Your task to perform on an android device: refresh tabs in the chrome app Image 0: 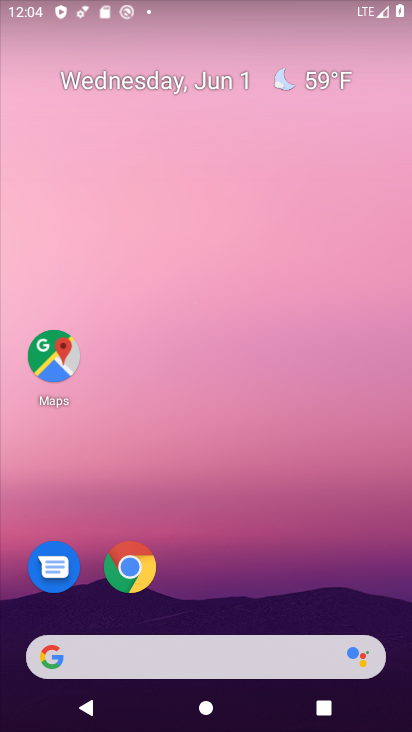
Step 0: drag from (313, 598) to (203, 94)
Your task to perform on an android device: refresh tabs in the chrome app Image 1: 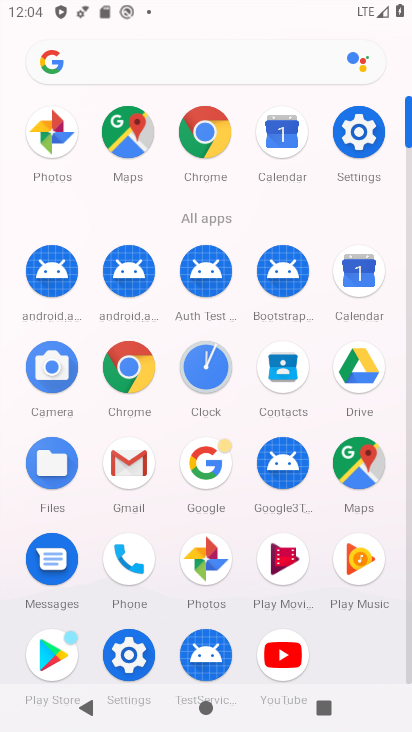
Step 1: click (205, 130)
Your task to perform on an android device: refresh tabs in the chrome app Image 2: 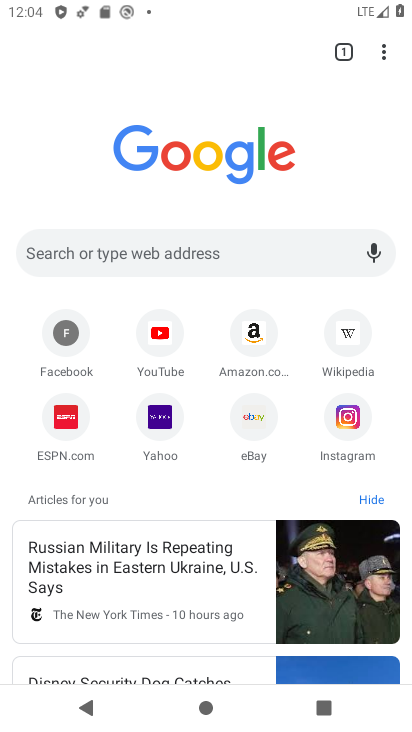
Step 2: click (386, 60)
Your task to perform on an android device: refresh tabs in the chrome app Image 3: 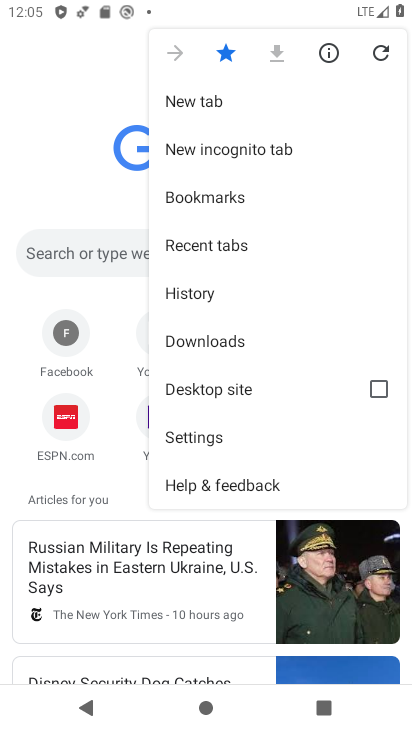
Step 3: click (386, 60)
Your task to perform on an android device: refresh tabs in the chrome app Image 4: 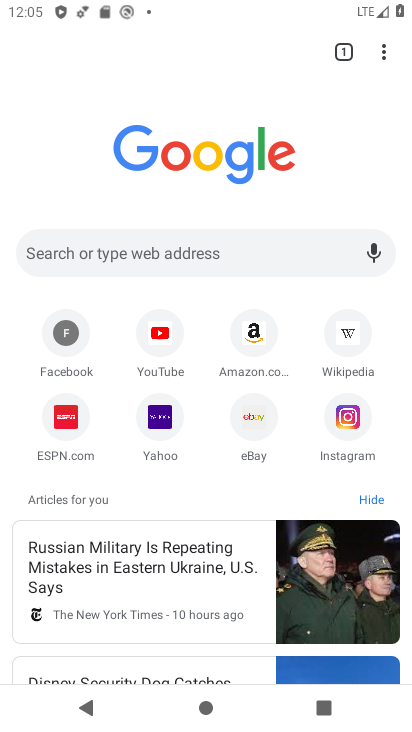
Step 4: click (386, 60)
Your task to perform on an android device: refresh tabs in the chrome app Image 5: 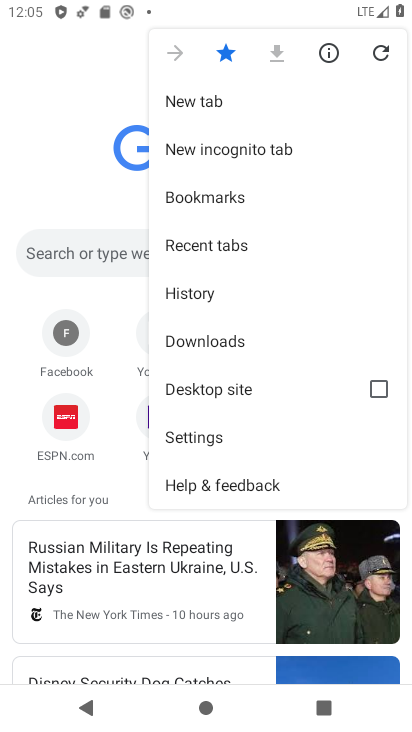
Step 5: click (383, 62)
Your task to perform on an android device: refresh tabs in the chrome app Image 6: 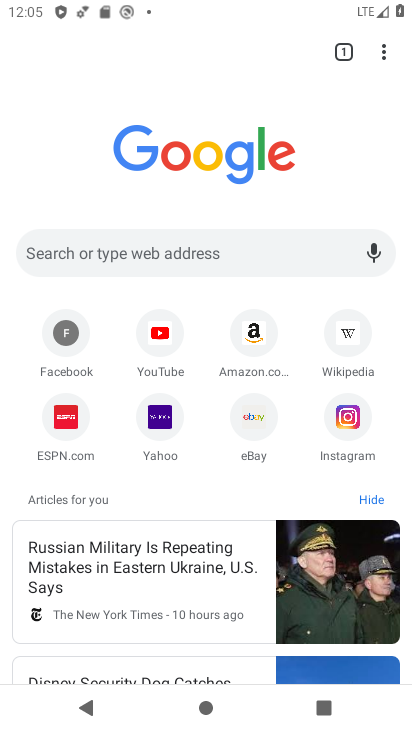
Step 6: task complete